Your task to perform on an android device: Go to network settings Image 0: 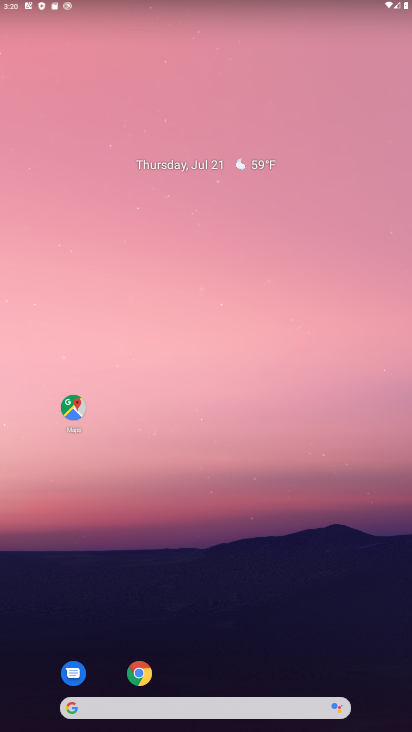
Step 0: drag from (321, 644) to (227, 50)
Your task to perform on an android device: Go to network settings Image 1: 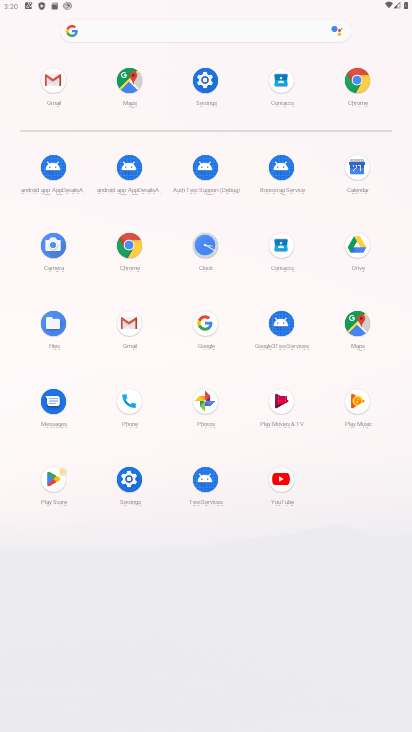
Step 1: click (199, 88)
Your task to perform on an android device: Go to network settings Image 2: 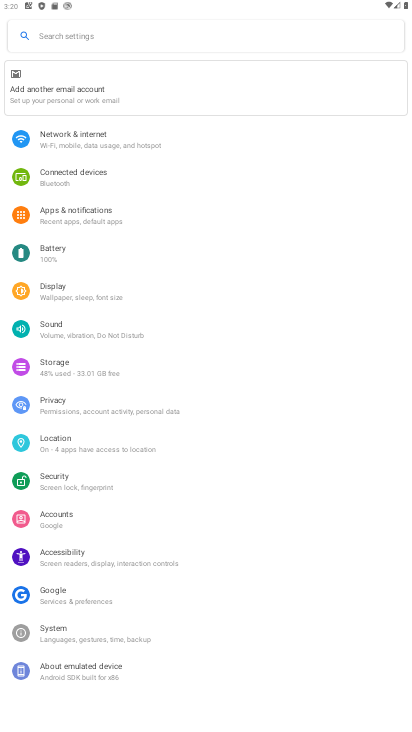
Step 2: drag from (132, 85) to (155, 142)
Your task to perform on an android device: Go to network settings Image 3: 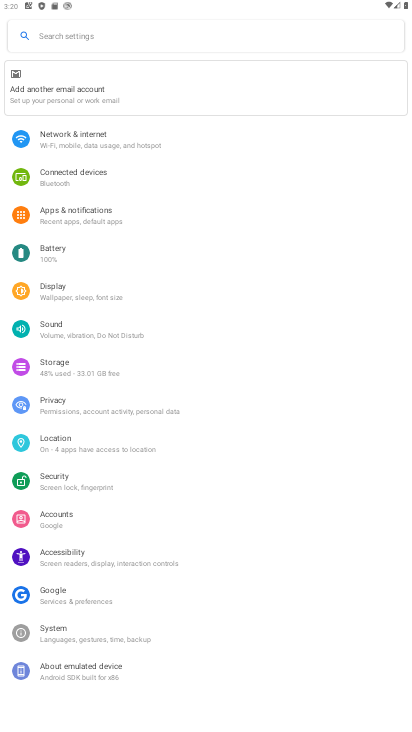
Step 3: click (152, 139)
Your task to perform on an android device: Go to network settings Image 4: 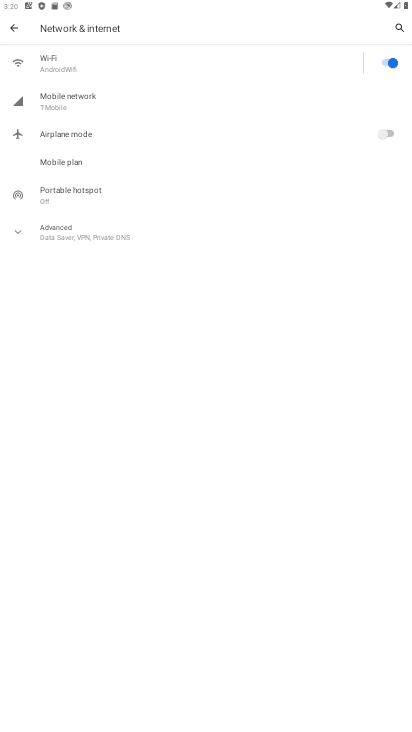
Step 4: task complete